Your task to perform on an android device: change the upload size in google photos Image 0: 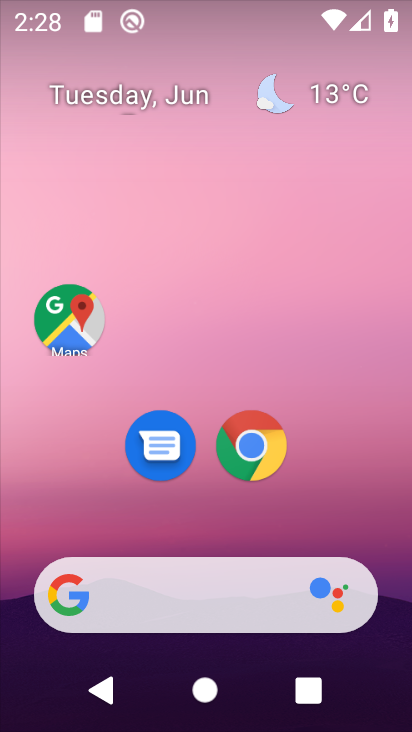
Step 0: drag from (254, 635) to (359, 27)
Your task to perform on an android device: change the upload size in google photos Image 1: 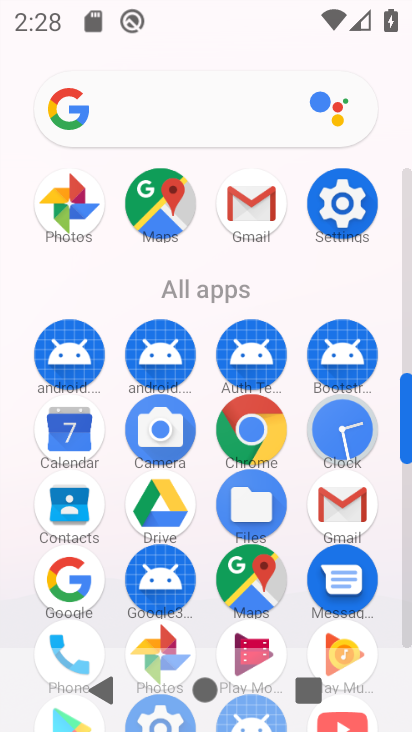
Step 1: click (72, 220)
Your task to perform on an android device: change the upload size in google photos Image 2: 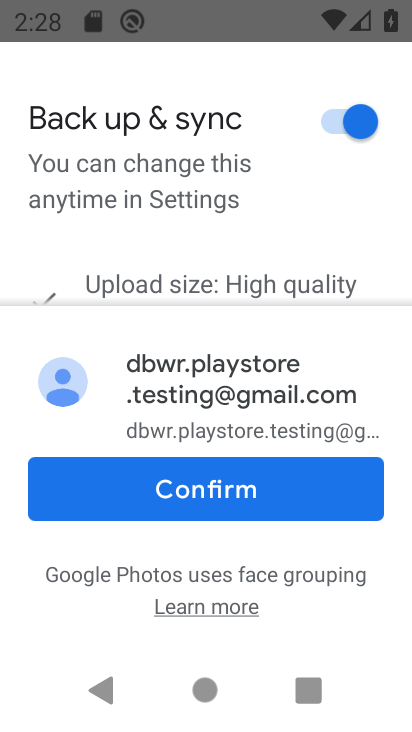
Step 2: click (313, 503)
Your task to perform on an android device: change the upload size in google photos Image 3: 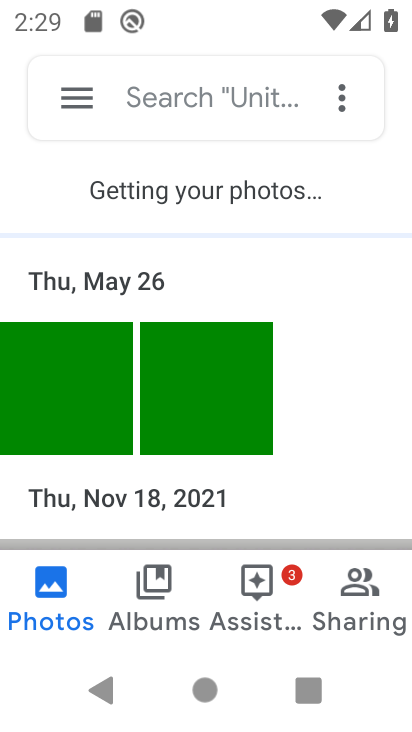
Step 3: click (84, 92)
Your task to perform on an android device: change the upload size in google photos Image 4: 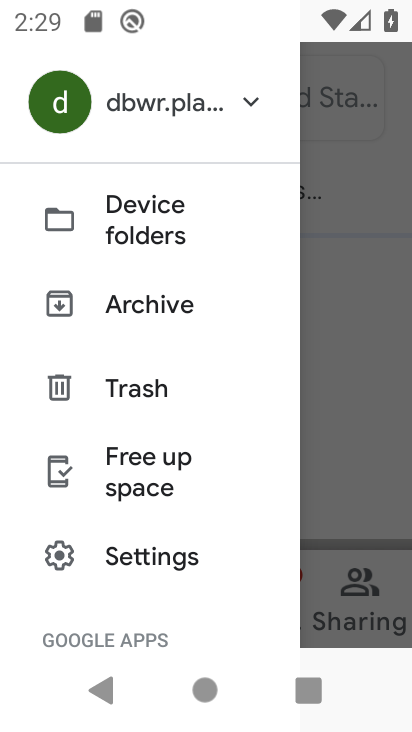
Step 4: click (156, 568)
Your task to perform on an android device: change the upload size in google photos Image 5: 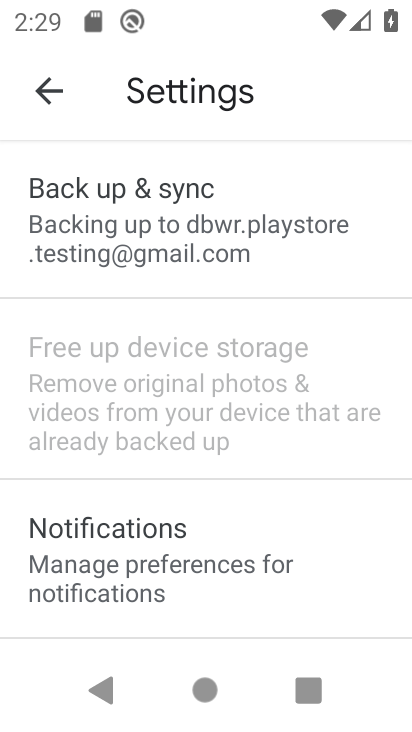
Step 5: click (329, 197)
Your task to perform on an android device: change the upload size in google photos Image 6: 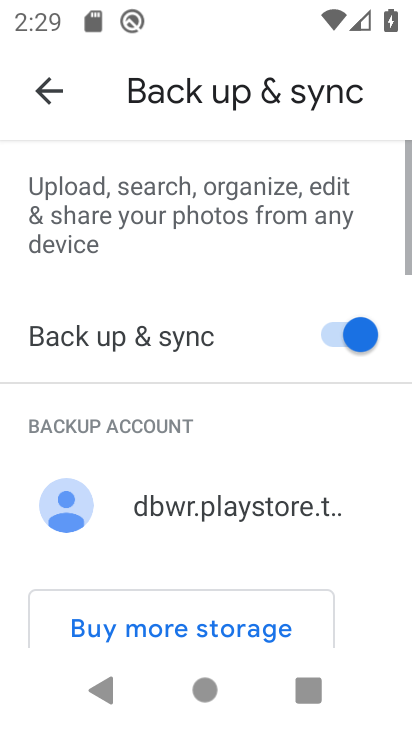
Step 6: drag from (299, 544) to (263, 80)
Your task to perform on an android device: change the upload size in google photos Image 7: 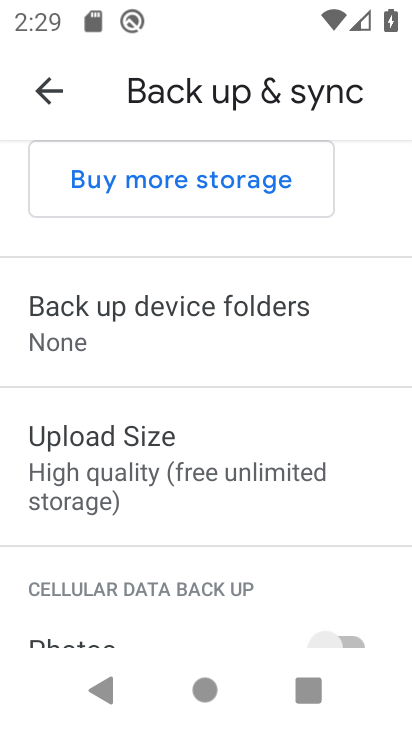
Step 7: click (250, 522)
Your task to perform on an android device: change the upload size in google photos Image 8: 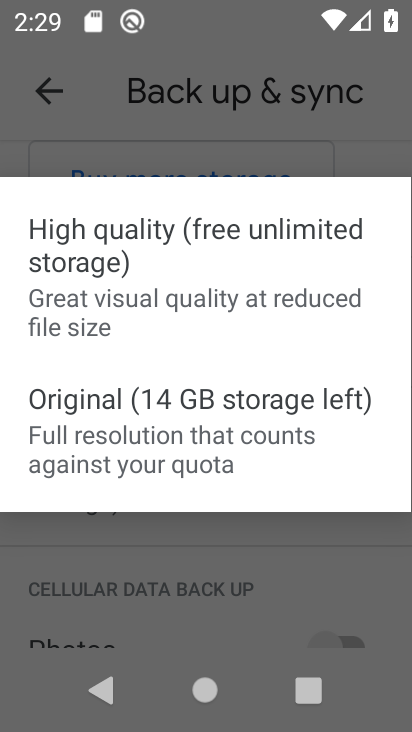
Step 8: click (254, 445)
Your task to perform on an android device: change the upload size in google photos Image 9: 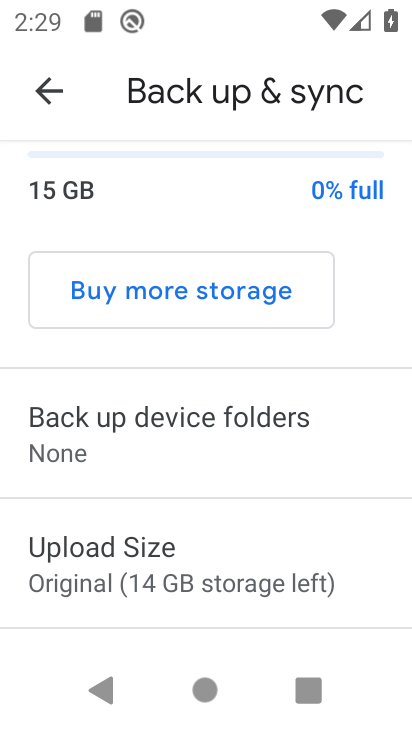
Step 9: task complete